Your task to perform on an android device: create a new album in the google photos Image 0: 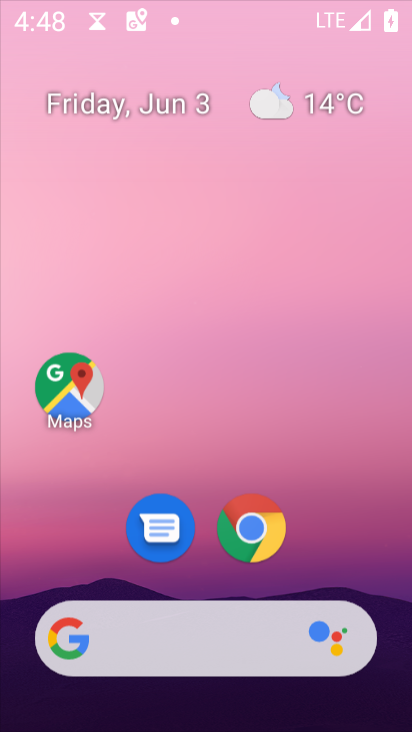
Step 0: click (298, 46)
Your task to perform on an android device: create a new album in the google photos Image 1: 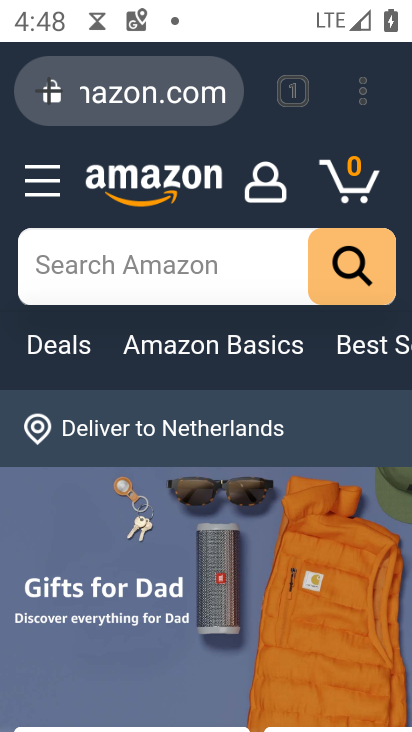
Step 1: click (324, 521)
Your task to perform on an android device: create a new album in the google photos Image 2: 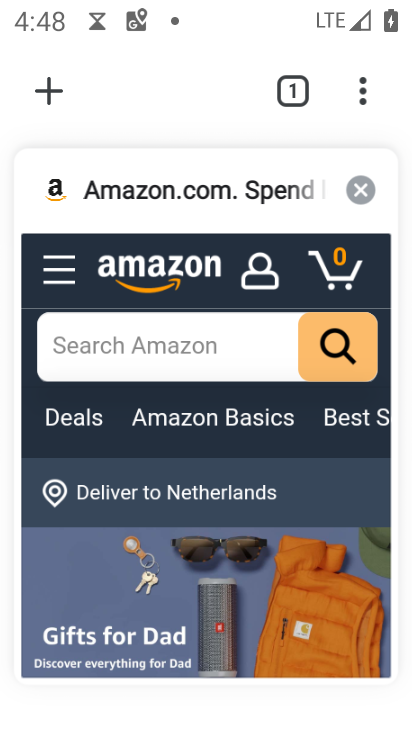
Step 2: press home button
Your task to perform on an android device: create a new album in the google photos Image 3: 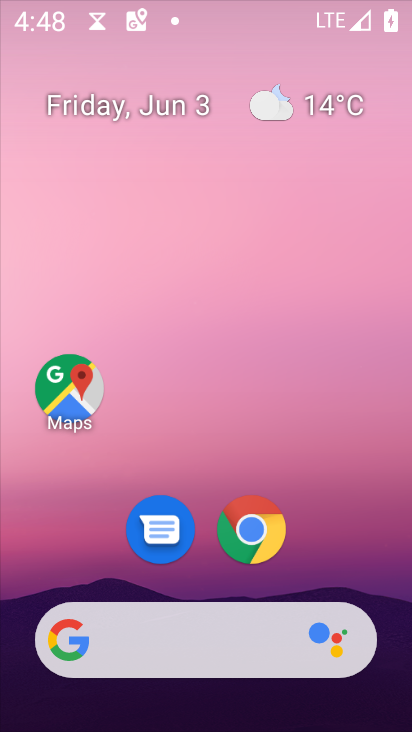
Step 3: drag from (363, 530) to (351, 10)
Your task to perform on an android device: create a new album in the google photos Image 4: 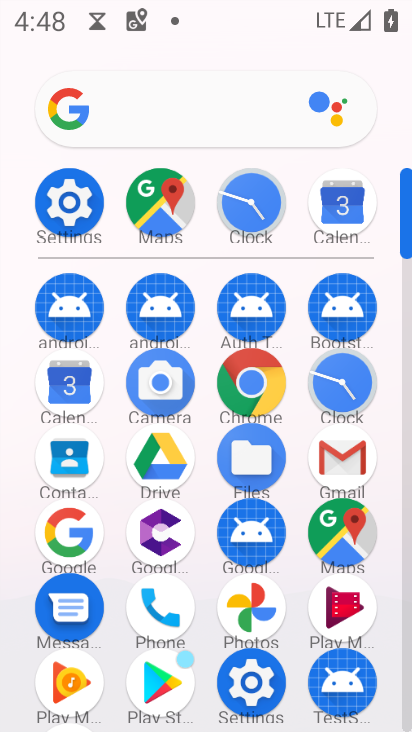
Step 4: click (229, 607)
Your task to perform on an android device: create a new album in the google photos Image 5: 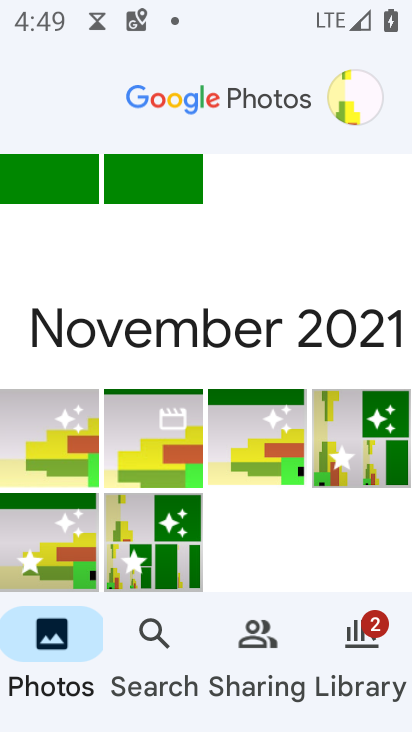
Step 5: task complete